Your task to perform on an android device: Go to network settings Image 0: 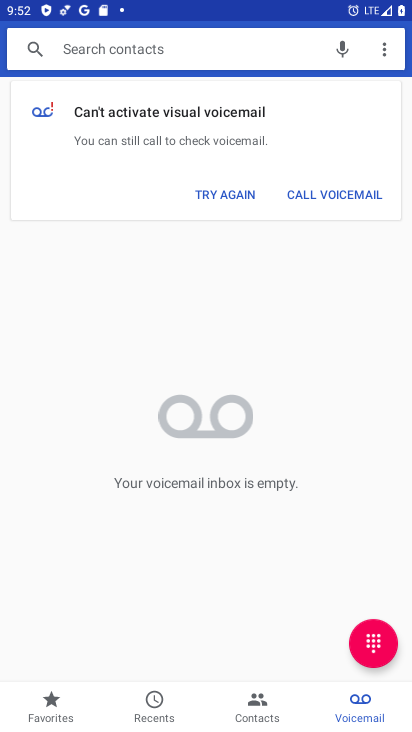
Step 0: press home button
Your task to perform on an android device: Go to network settings Image 1: 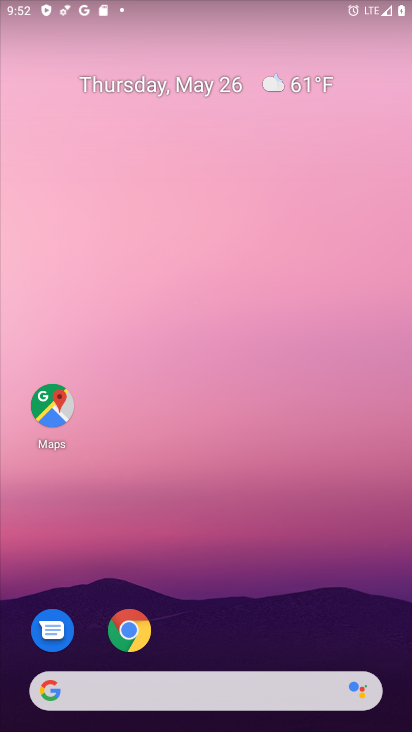
Step 1: drag from (177, 639) to (312, 74)
Your task to perform on an android device: Go to network settings Image 2: 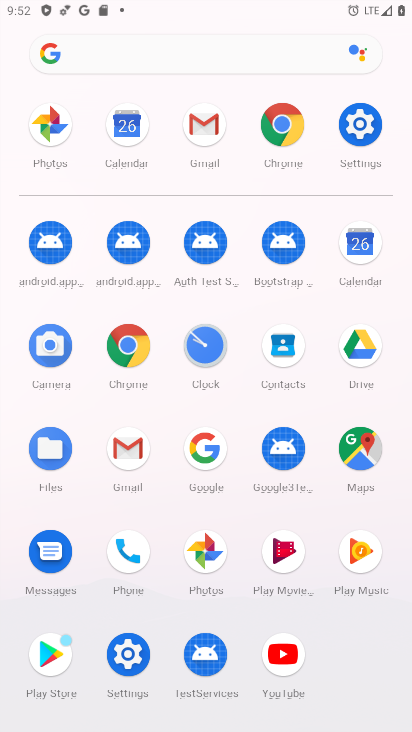
Step 2: click (126, 652)
Your task to perform on an android device: Go to network settings Image 3: 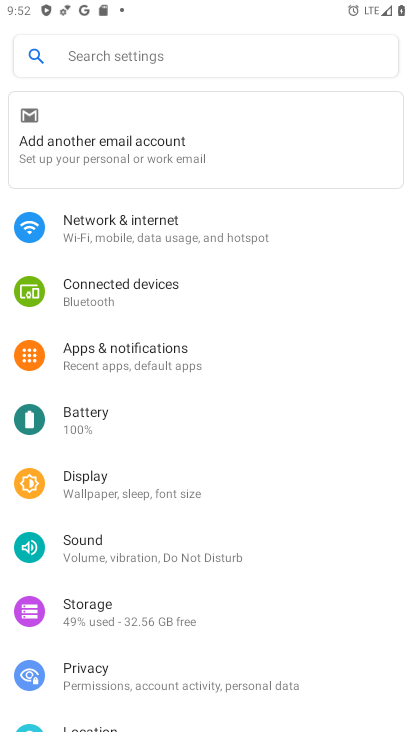
Step 3: click (101, 236)
Your task to perform on an android device: Go to network settings Image 4: 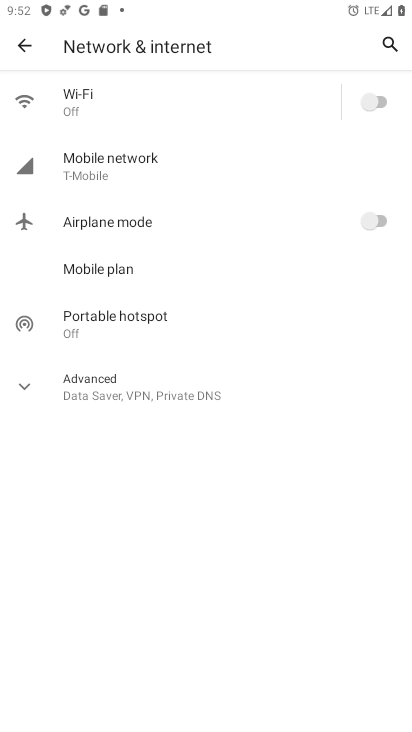
Step 4: click (128, 162)
Your task to perform on an android device: Go to network settings Image 5: 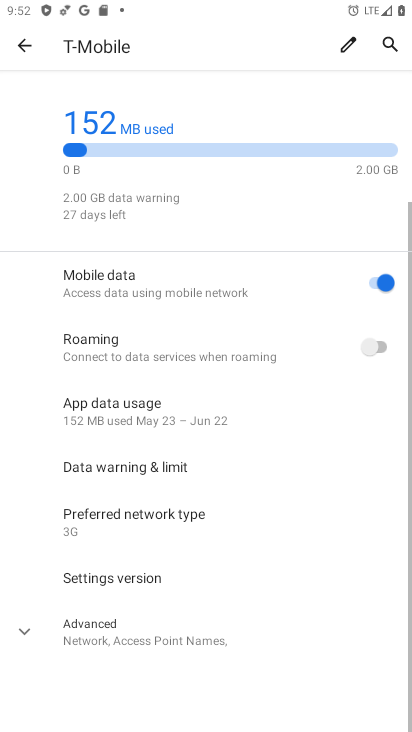
Step 5: task complete